Your task to perform on an android device: visit the assistant section in the google photos Image 0: 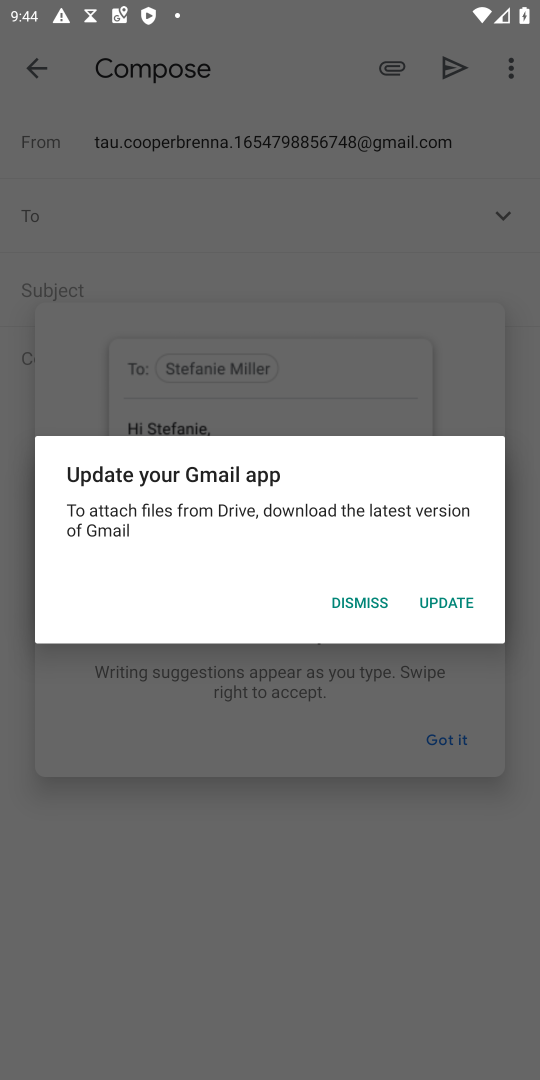
Step 0: press home button
Your task to perform on an android device: visit the assistant section in the google photos Image 1: 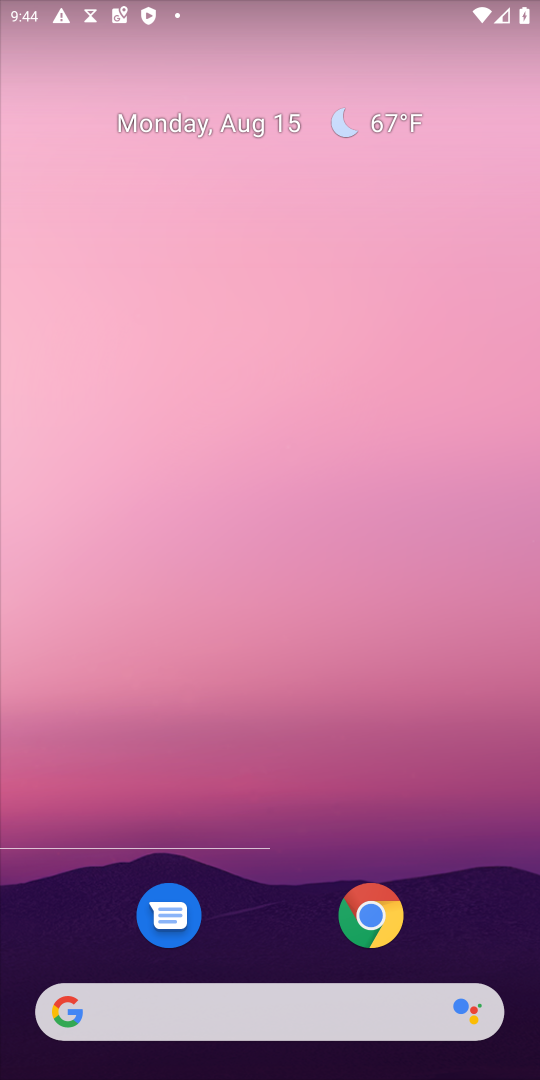
Step 1: drag from (246, 849) to (233, 422)
Your task to perform on an android device: visit the assistant section in the google photos Image 2: 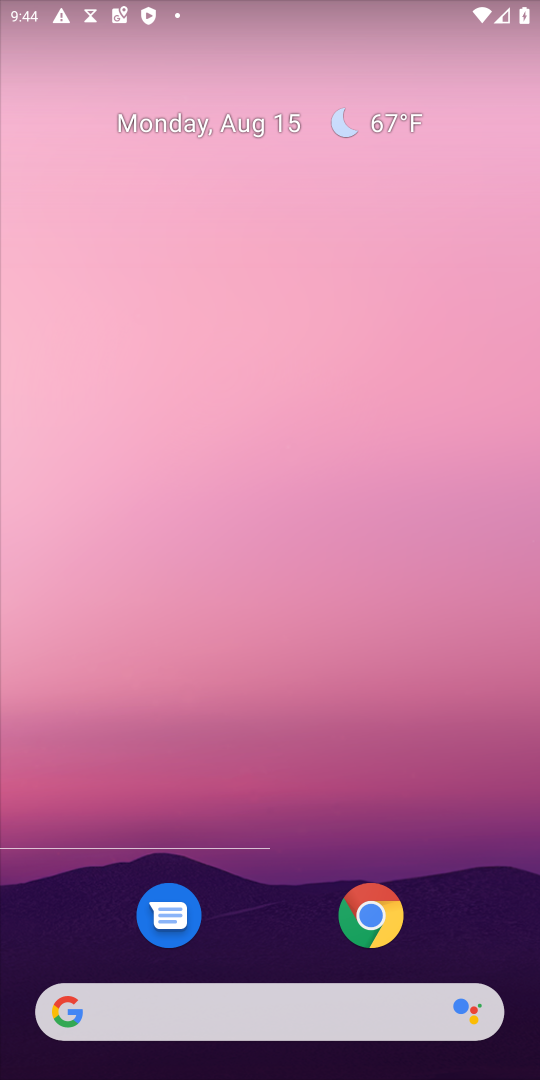
Step 2: drag from (248, 948) to (166, 317)
Your task to perform on an android device: visit the assistant section in the google photos Image 3: 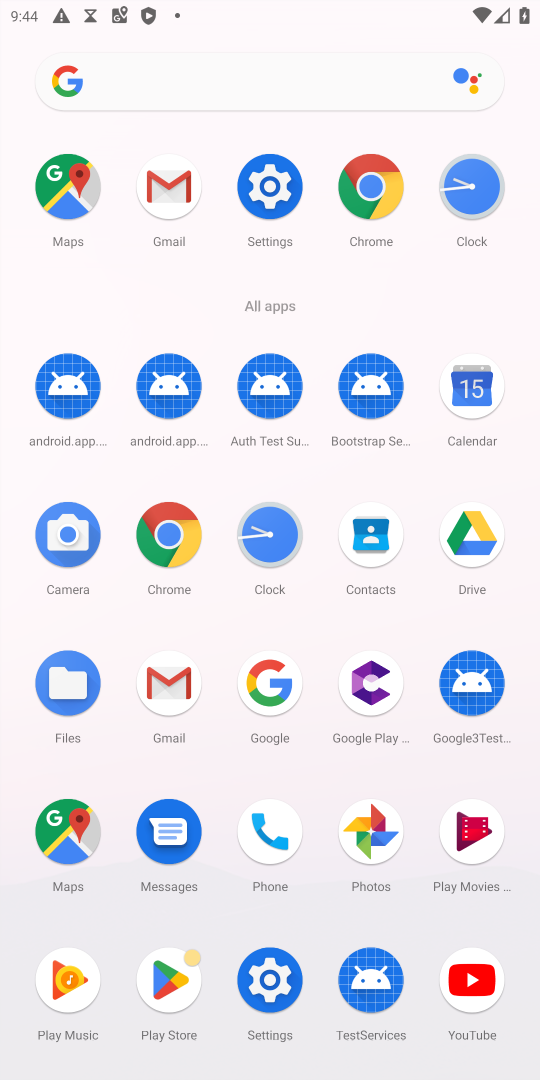
Step 3: click (378, 834)
Your task to perform on an android device: visit the assistant section in the google photos Image 4: 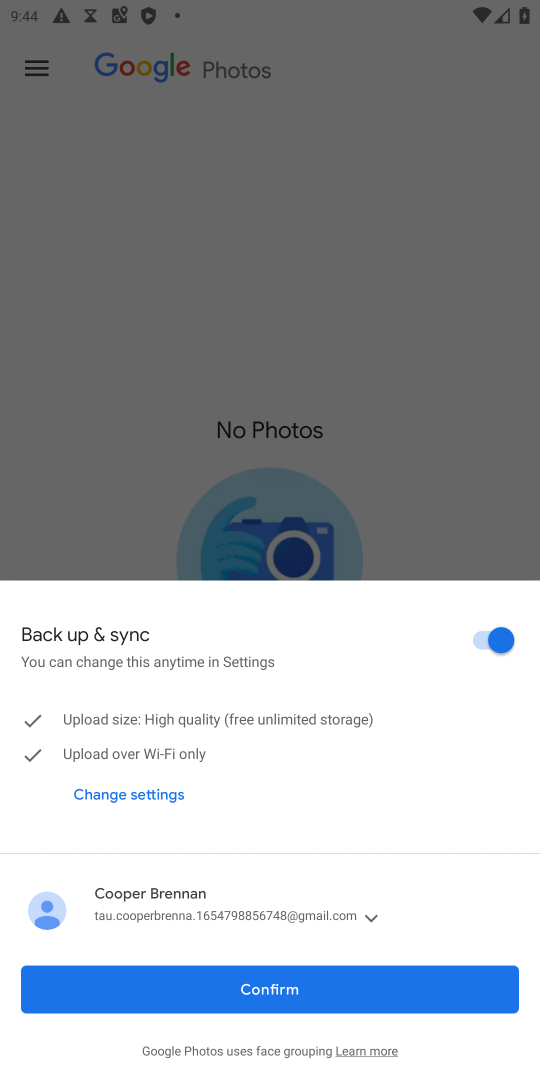
Step 4: click (287, 995)
Your task to perform on an android device: visit the assistant section in the google photos Image 5: 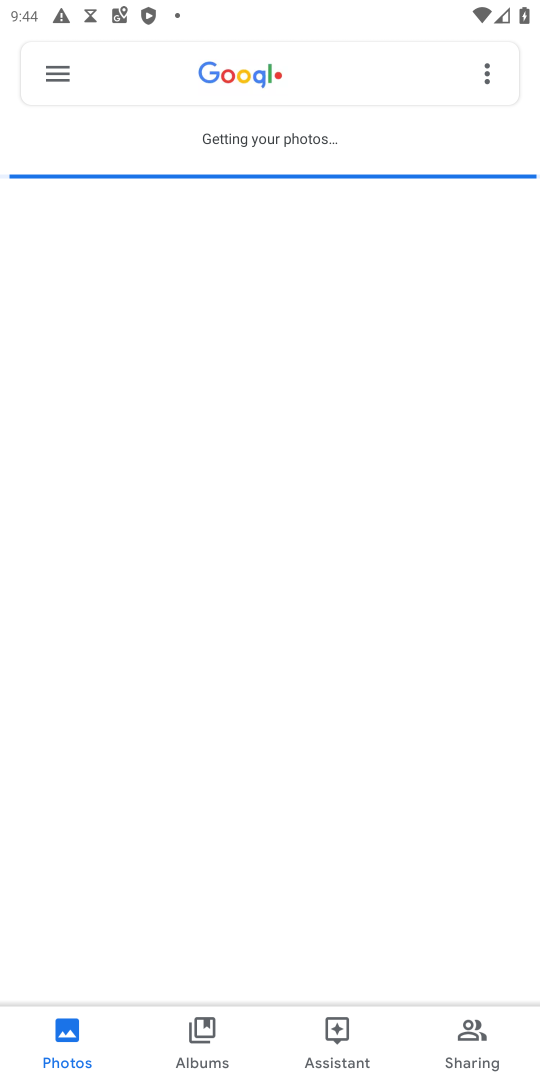
Step 5: click (329, 1057)
Your task to perform on an android device: visit the assistant section in the google photos Image 6: 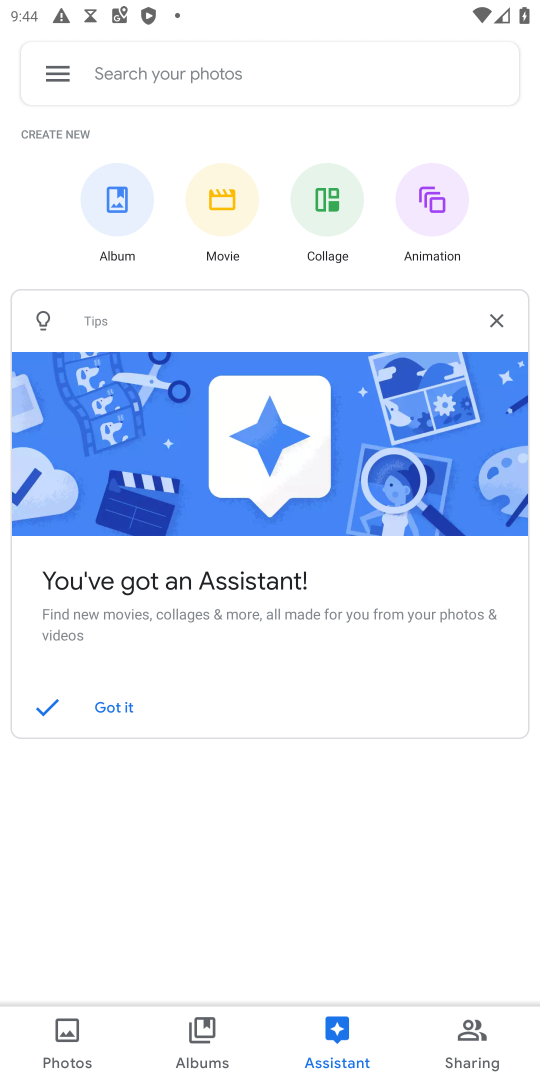
Step 6: task complete